Your task to perform on an android device: Search for Mexican restaurants on Maps Image 0: 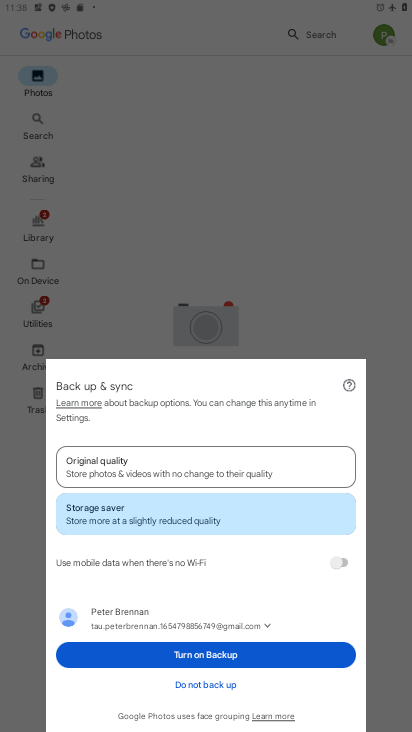
Step 0: press home button
Your task to perform on an android device: Search for Mexican restaurants on Maps Image 1: 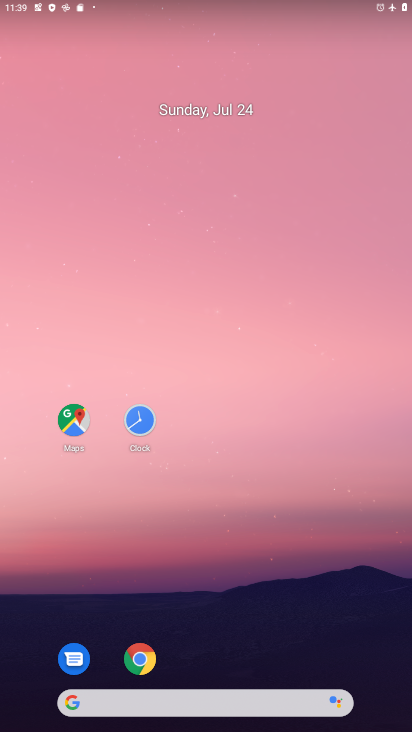
Step 1: click (74, 419)
Your task to perform on an android device: Search for Mexican restaurants on Maps Image 2: 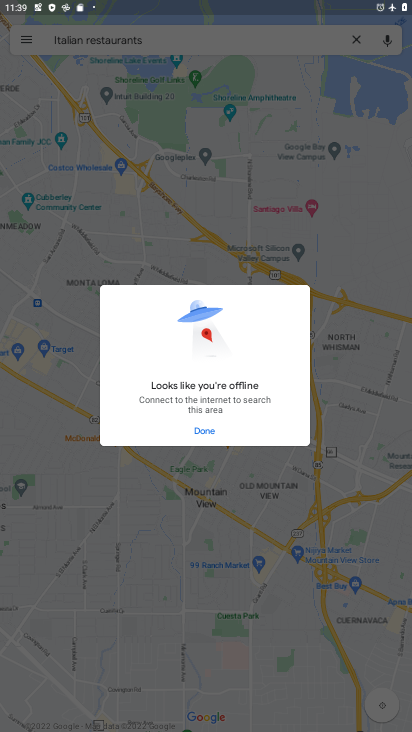
Step 2: press back button
Your task to perform on an android device: Search for Mexican restaurants on Maps Image 3: 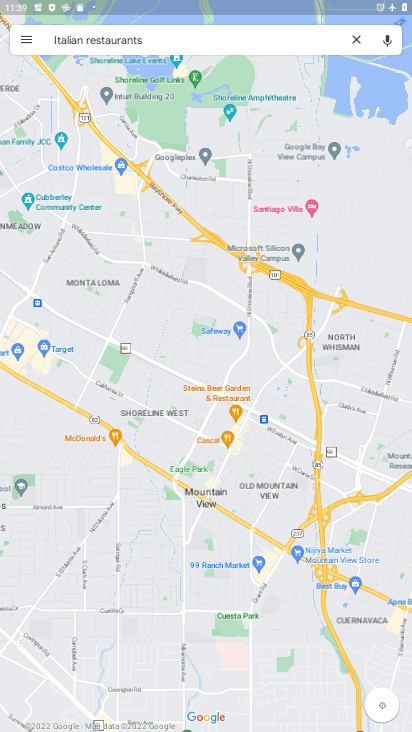
Step 3: click (87, 34)
Your task to perform on an android device: Search for Mexican restaurants on Maps Image 4: 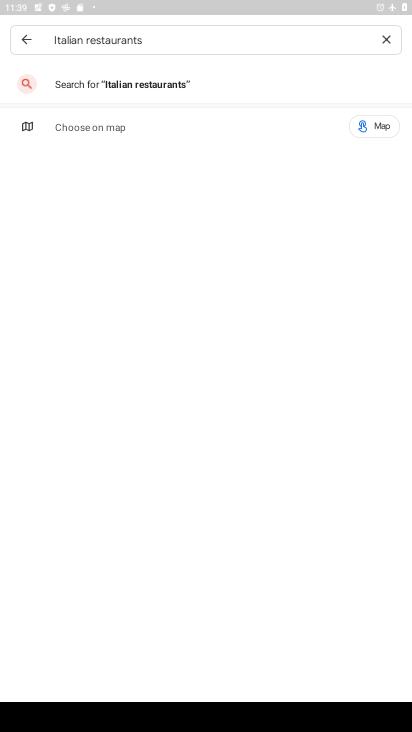
Step 4: click (381, 35)
Your task to perform on an android device: Search for Mexican restaurants on Maps Image 5: 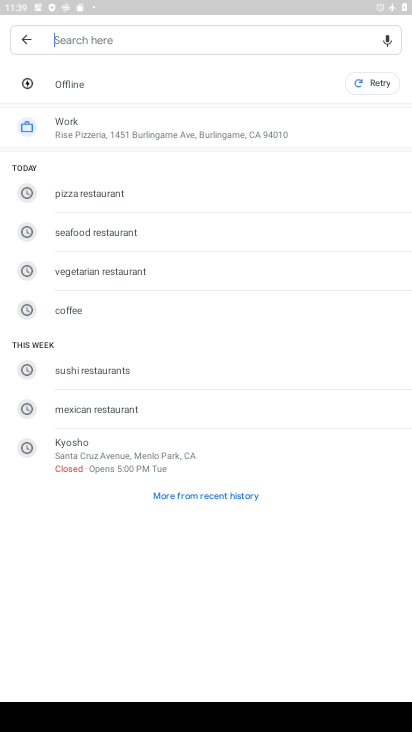
Step 5: type "Mexican restaurants"
Your task to perform on an android device: Search for Mexican restaurants on Maps Image 6: 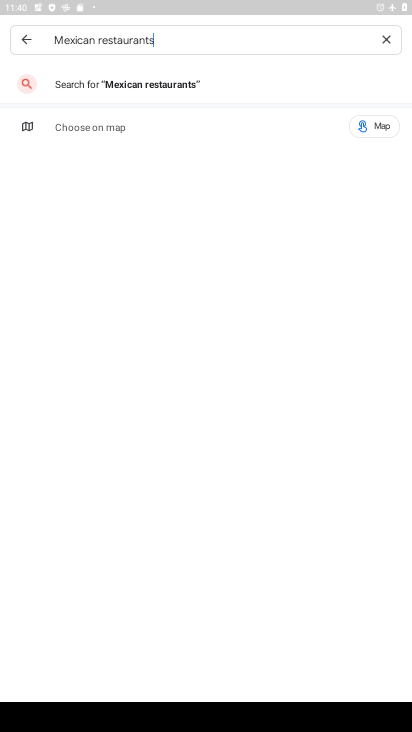
Step 6: click (130, 83)
Your task to perform on an android device: Search for Mexican restaurants on Maps Image 7: 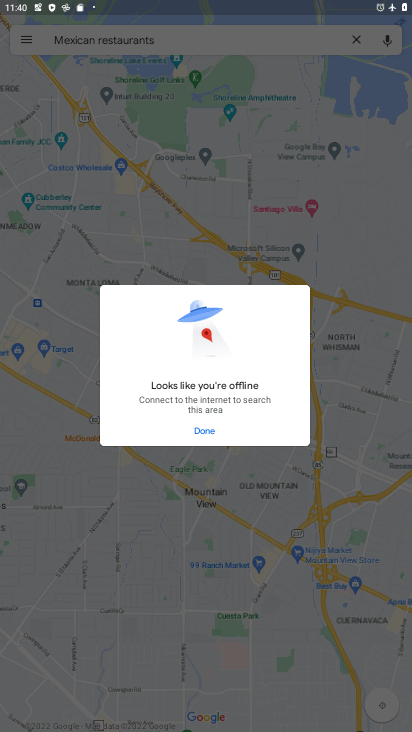
Step 7: task complete